Your task to perform on an android device: turn off airplane mode Image 0: 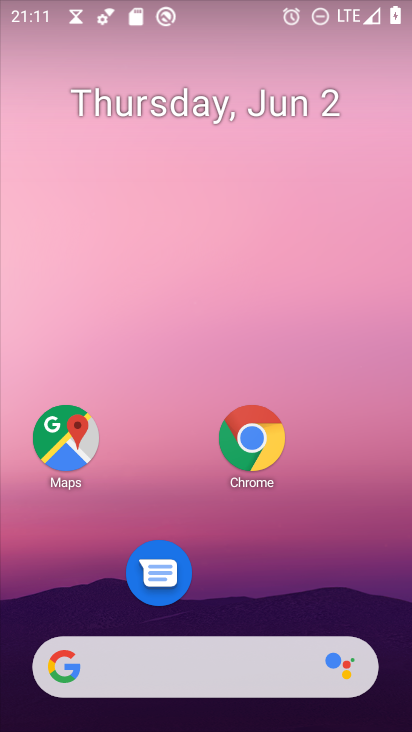
Step 0: press home button
Your task to perform on an android device: turn off airplane mode Image 1: 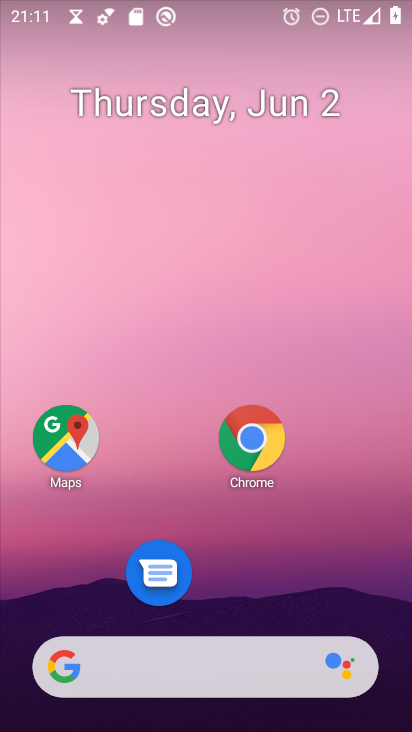
Step 1: drag from (175, 671) to (277, 124)
Your task to perform on an android device: turn off airplane mode Image 2: 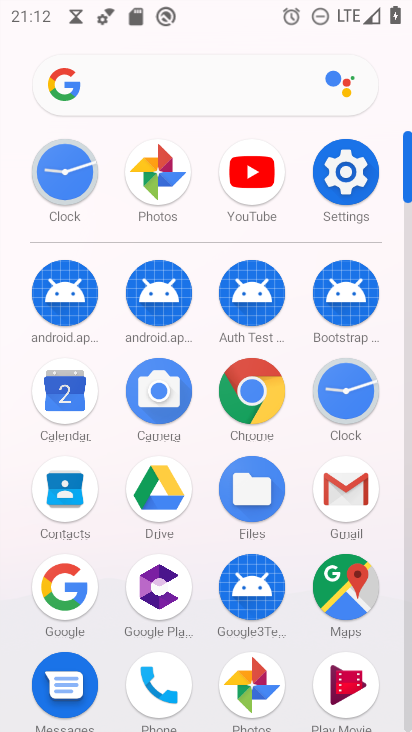
Step 2: click (345, 184)
Your task to perform on an android device: turn off airplane mode Image 3: 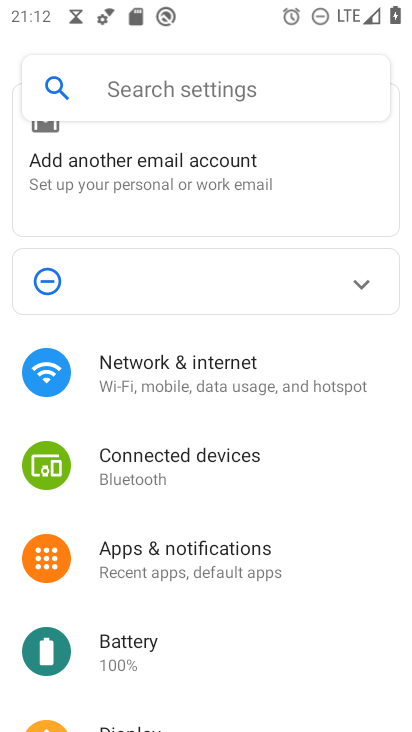
Step 3: click (209, 368)
Your task to perform on an android device: turn off airplane mode Image 4: 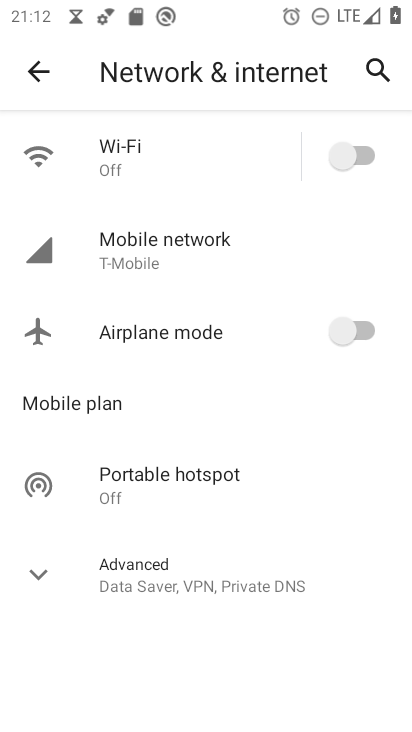
Step 4: task complete